Your task to perform on an android device: Go to internet settings Image 0: 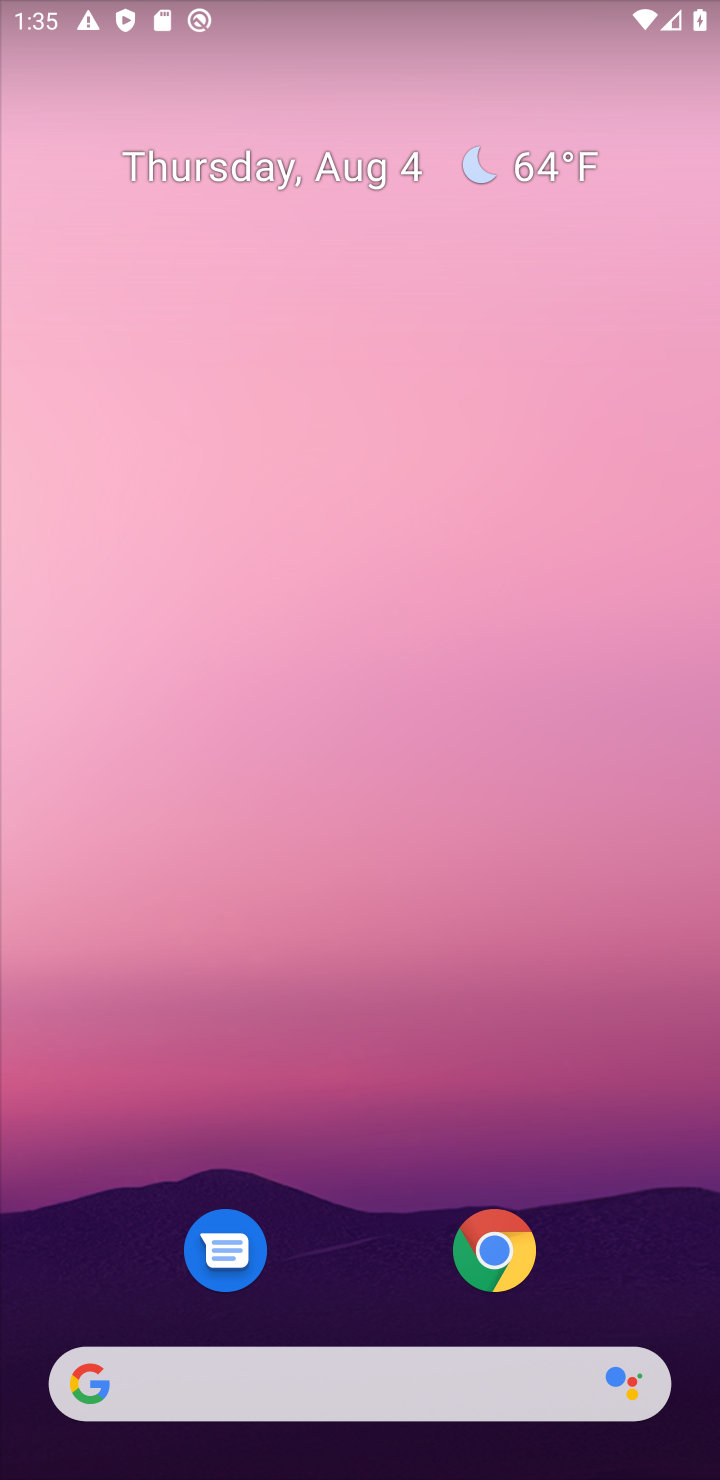
Step 0: click (335, 389)
Your task to perform on an android device: Go to internet settings Image 1: 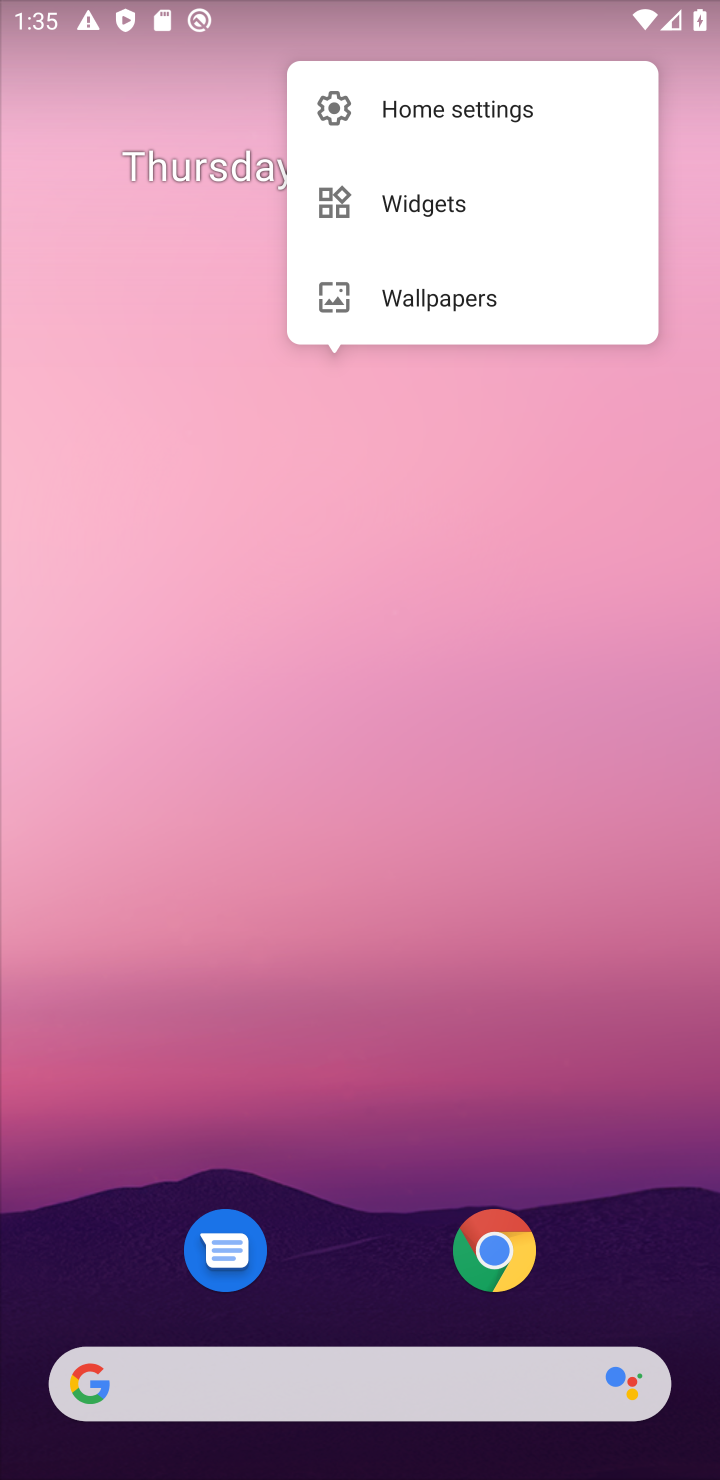
Step 1: click (349, 645)
Your task to perform on an android device: Go to internet settings Image 2: 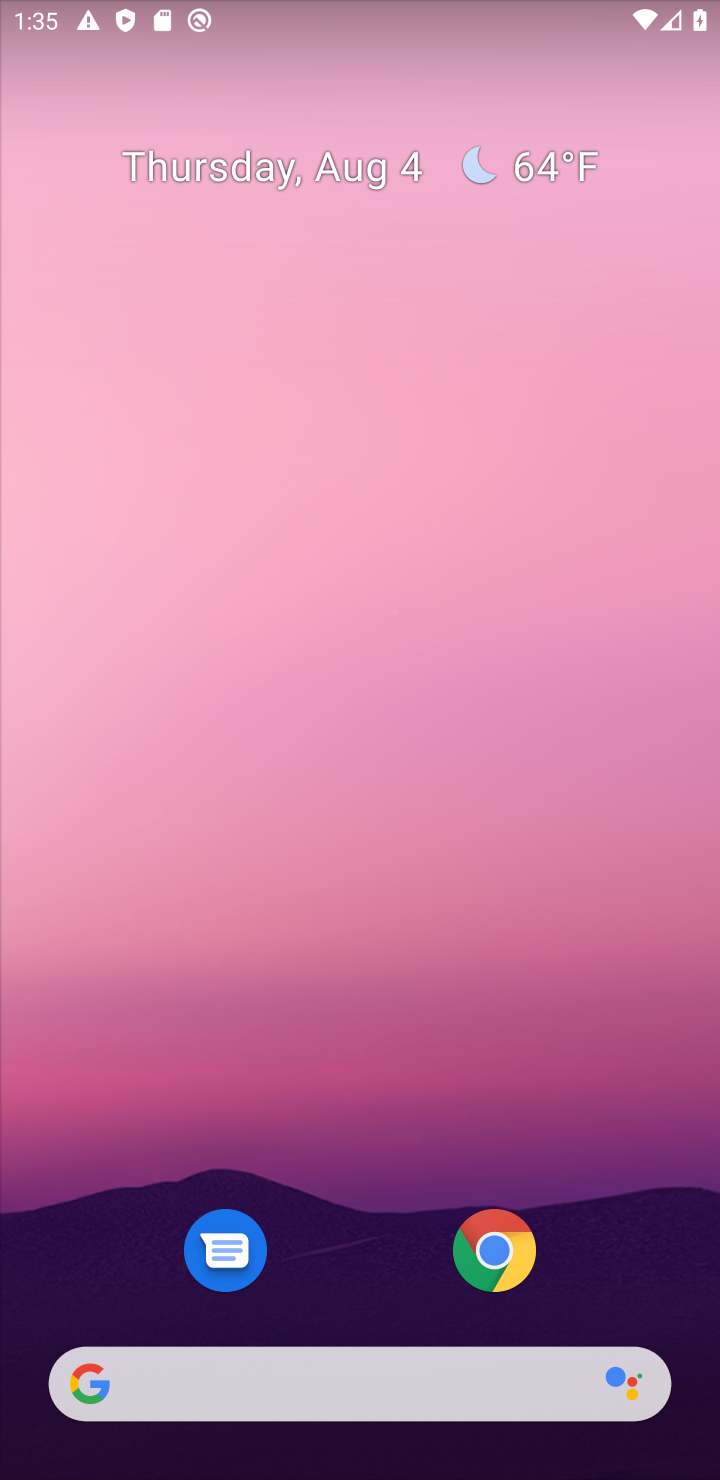
Step 2: drag from (362, 1302) to (363, 908)
Your task to perform on an android device: Go to internet settings Image 3: 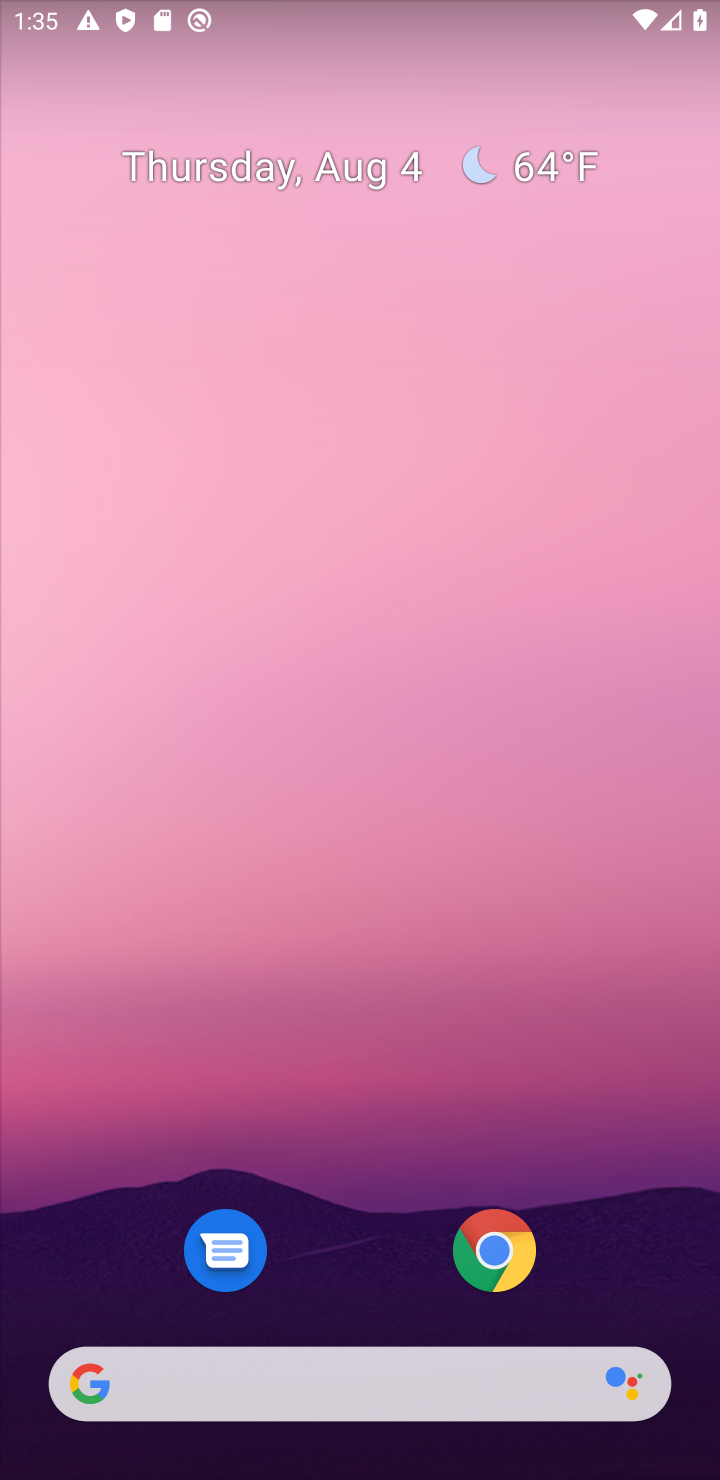
Step 3: drag from (373, 1084) to (307, 159)
Your task to perform on an android device: Go to internet settings Image 4: 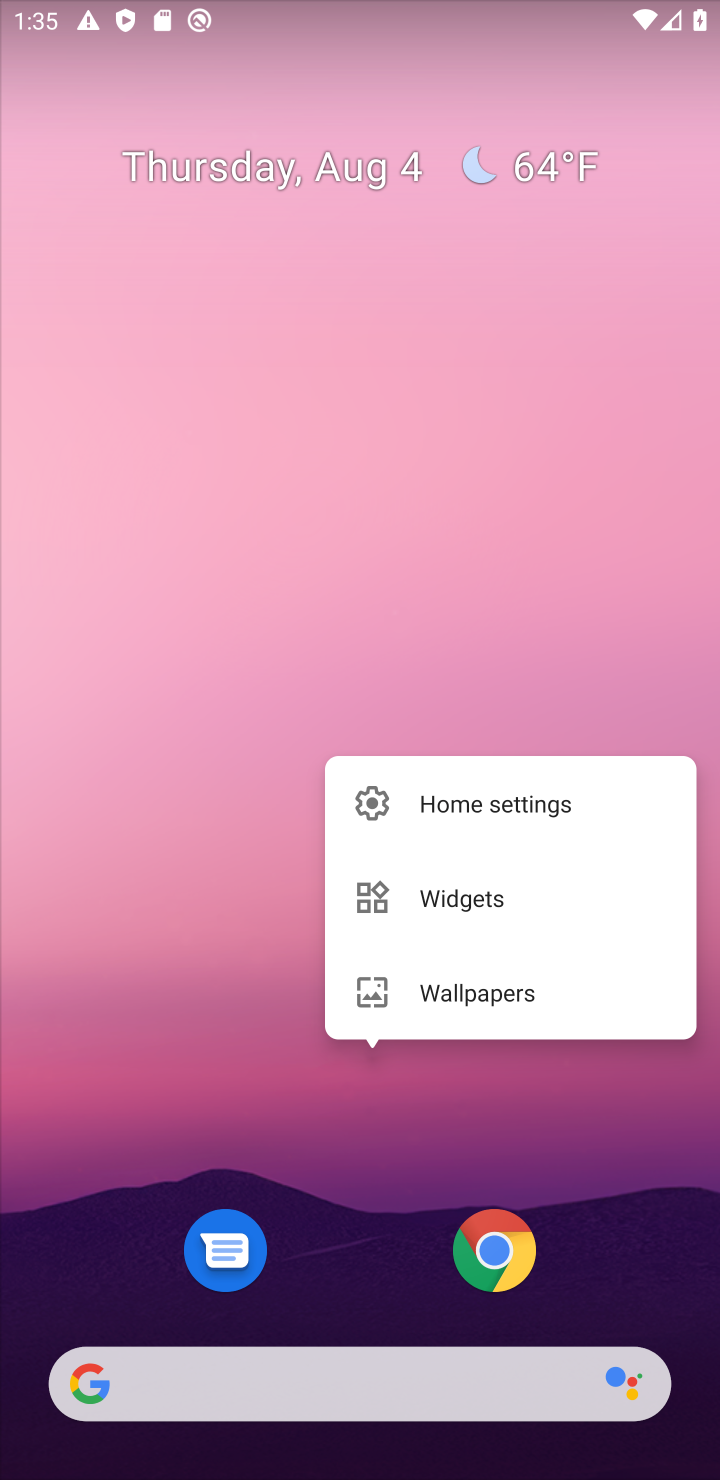
Step 4: click (309, 354)
Your task to perform on an android device: Go to internet settings Image 5: 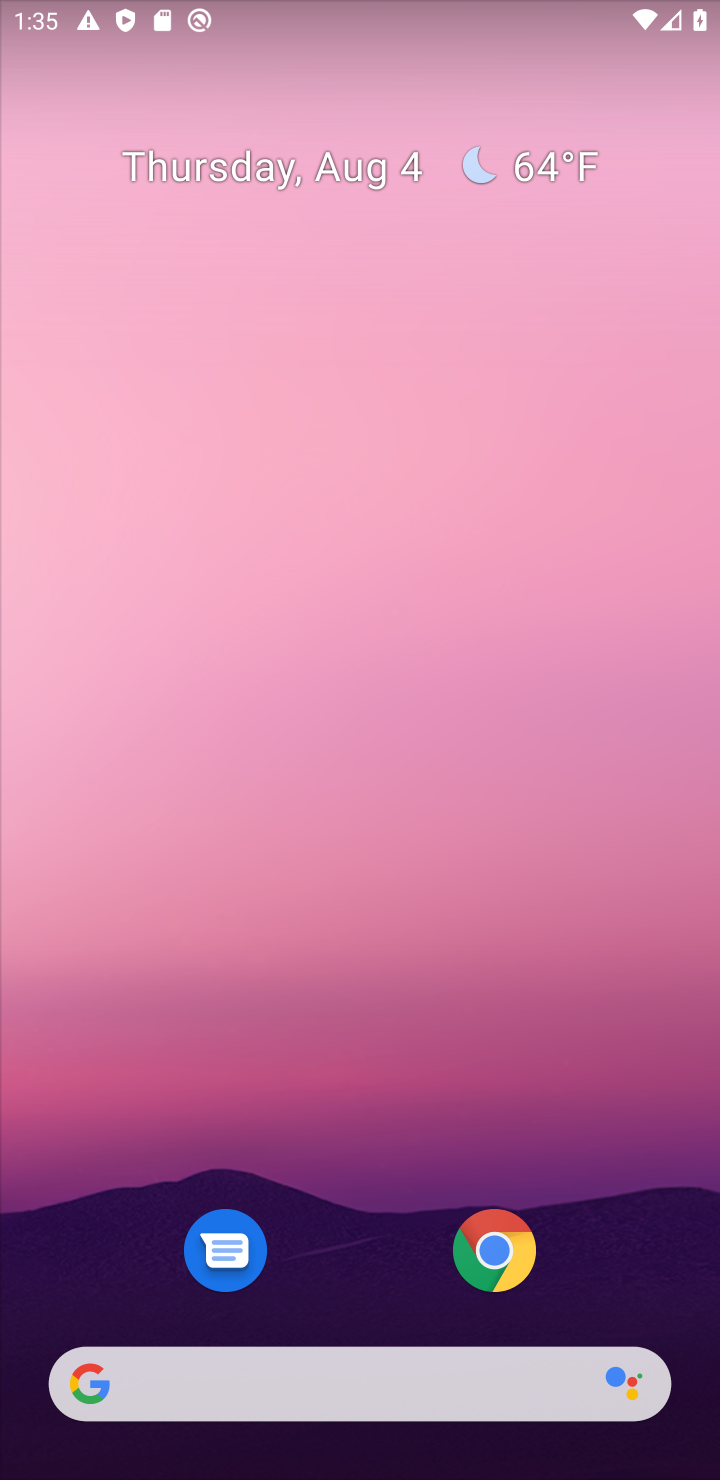
Step 5: drag from (304, 1170) to (396, 422)
Your task to perform on an android device: Go to internet settings Image 6: 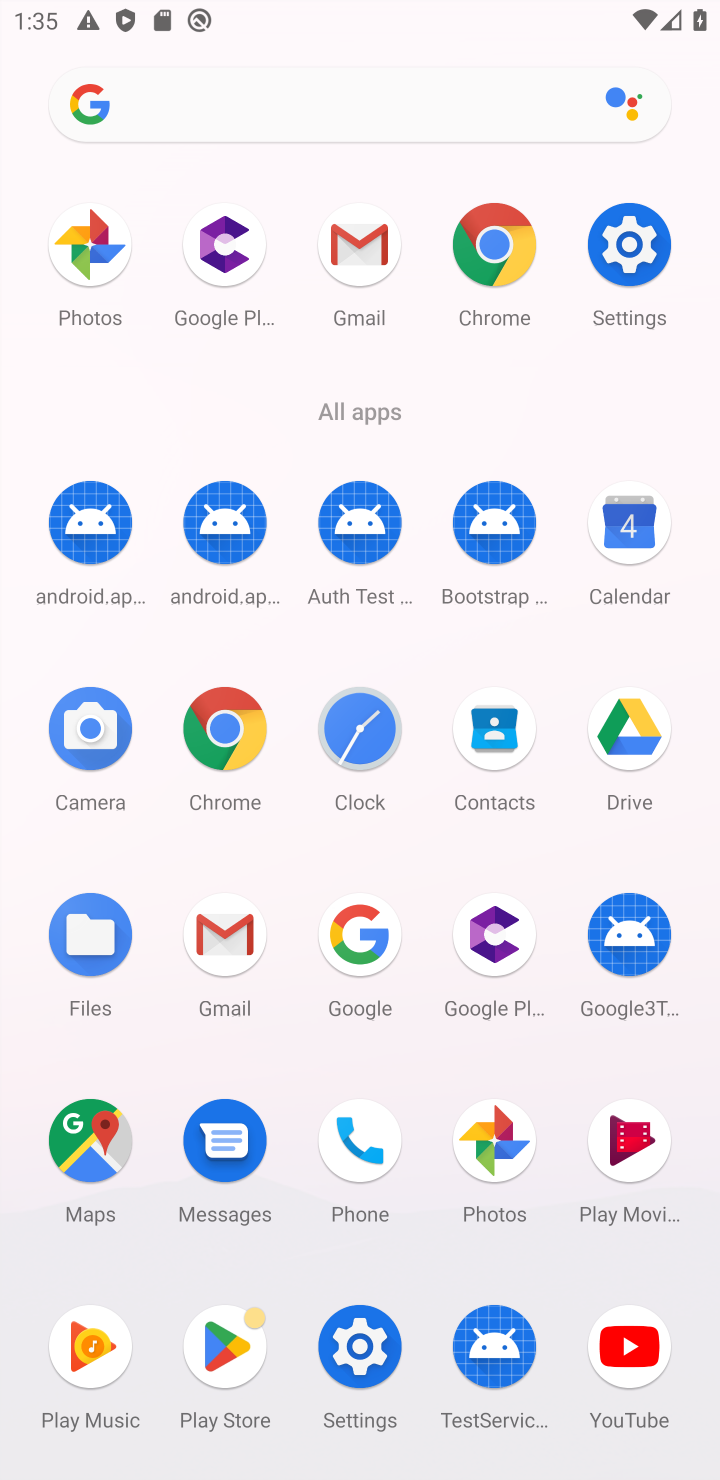
Step 6: click (618, 223)
Your task to perform on an android device: Go to internet settings Image 7: 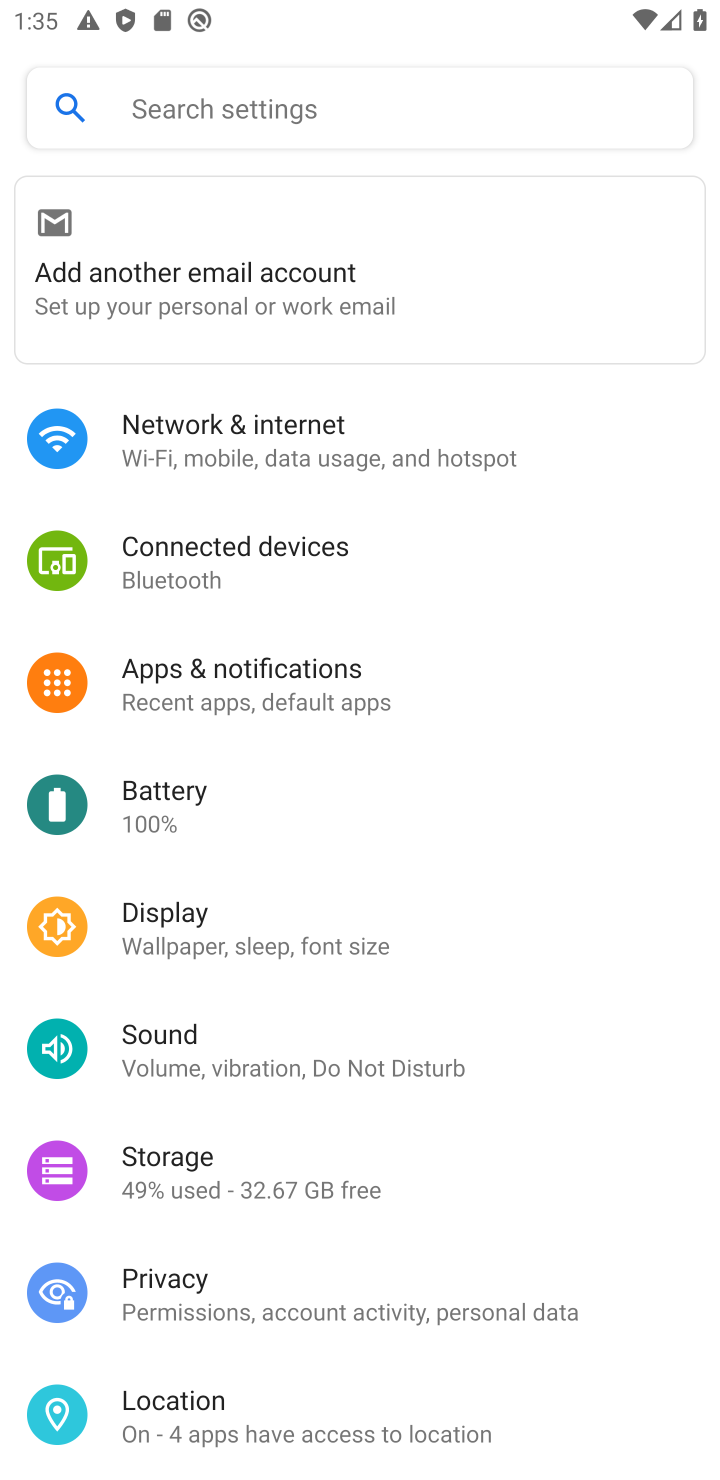
Step 7: click (292, 465)
Your task to perform on an android device: Go to internet settings Image 8: 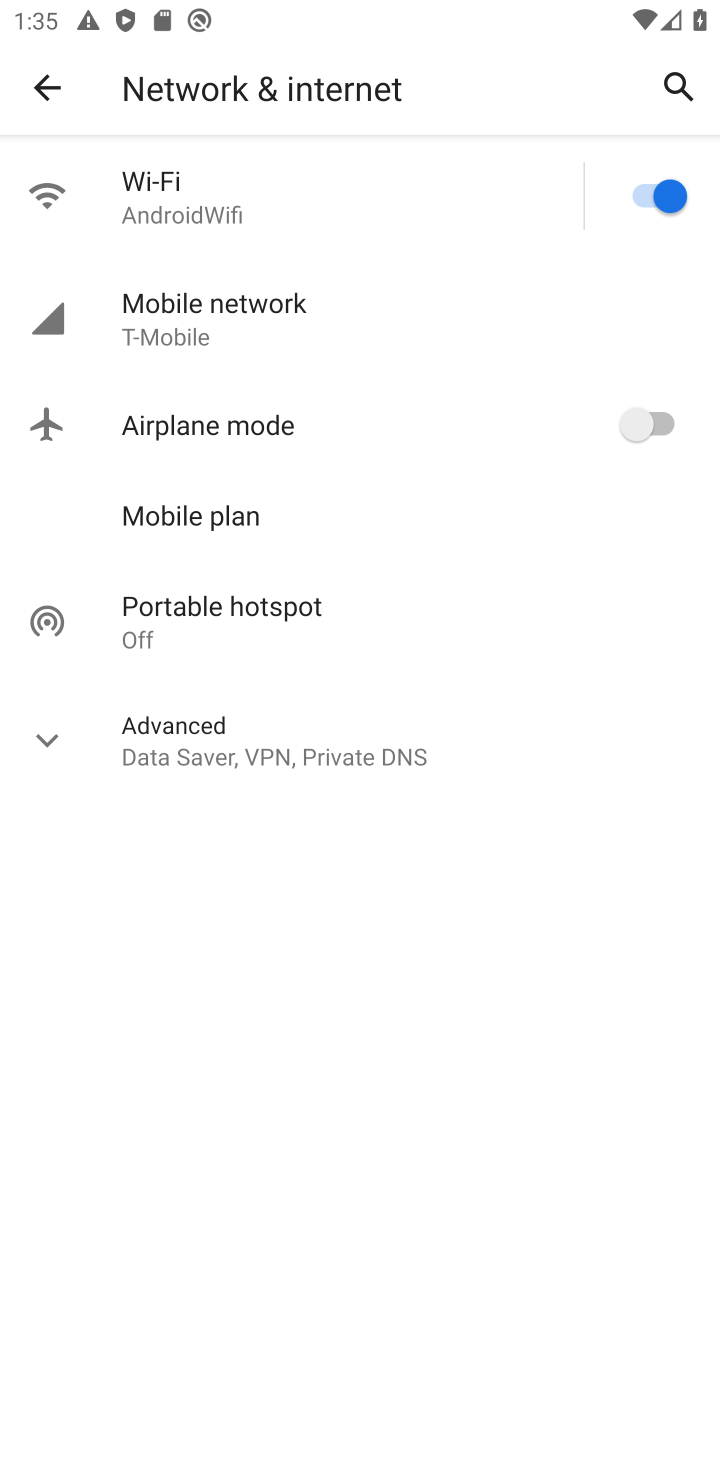
Step 8: click (141, 346)
Your task to perform on an android device: Go to internet settings Image 9: 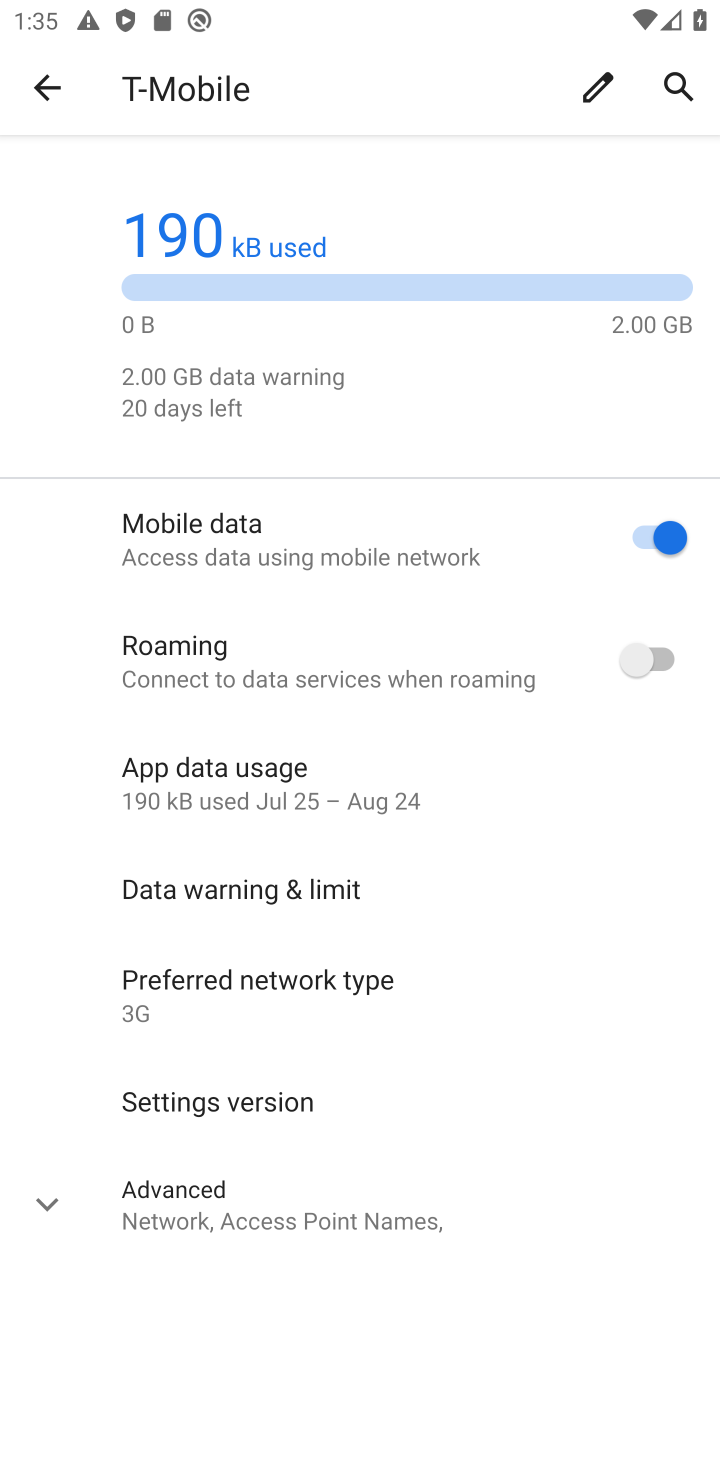
Step 9: task complete